Your task to perform on an android device: Open maps Image 0: 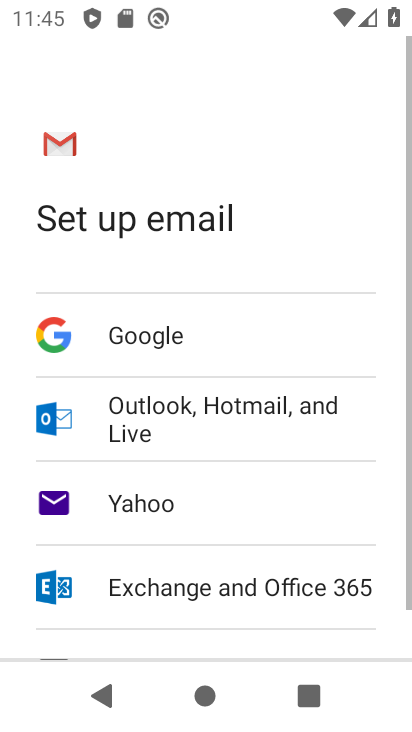
Step 0: press home button
Your task to perform on an android device: Open maps Image 1: 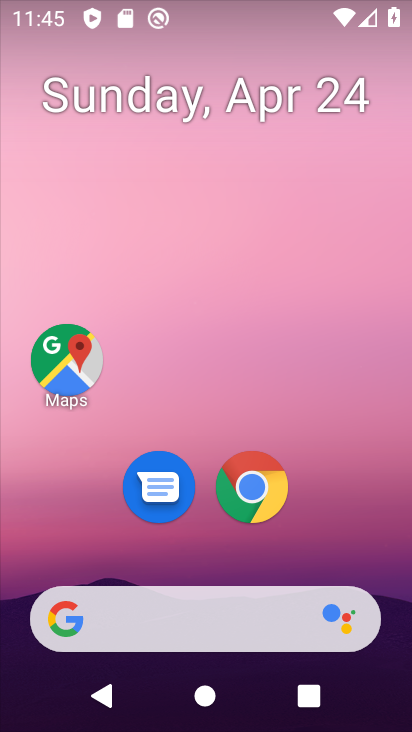
Step 1: drag from (393, 622) to (273, 58)
Your task to perform on an android device: Open maps Image 2: 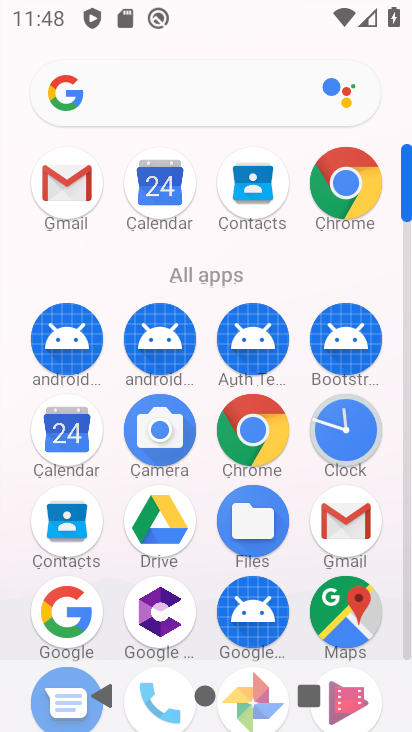
Step 2: click (360, 614)
Your task to perform on an android device: Open maps Image 3: 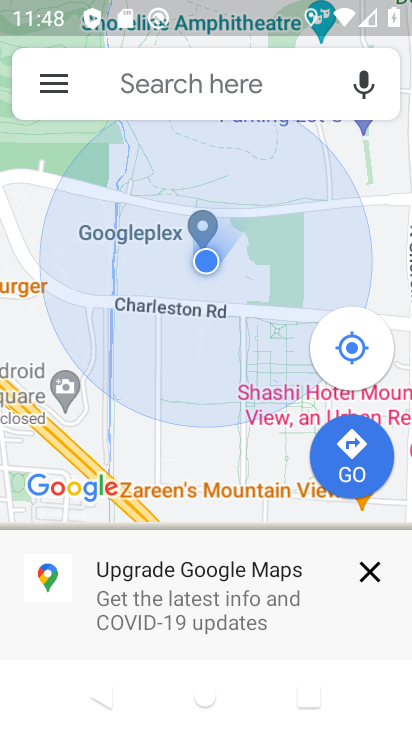
Step 3: click (377, 574)
Your task to perform on an android device: Open maps Image 4: 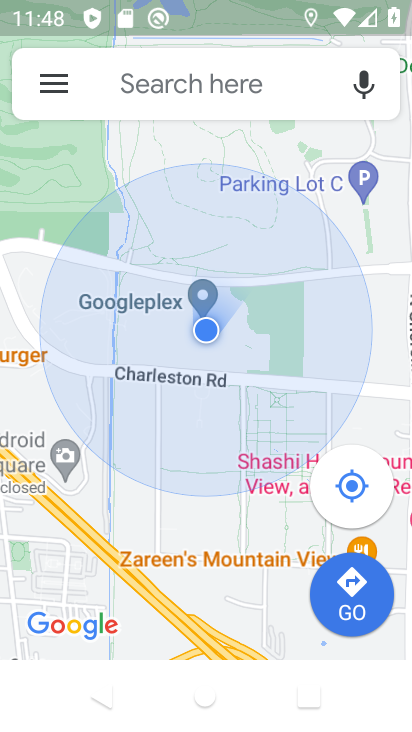
Step 4: task complete